Your task to perform on an android device: Go to Maps Image 0: 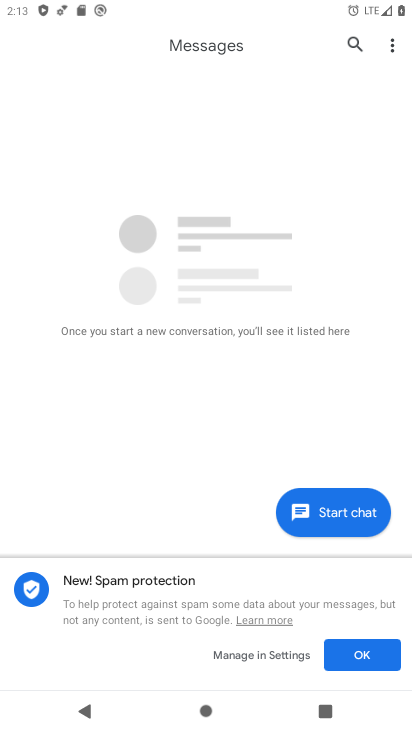
Step 0: press back button
Your task to perform on an android device: Go to Maps Image 1: 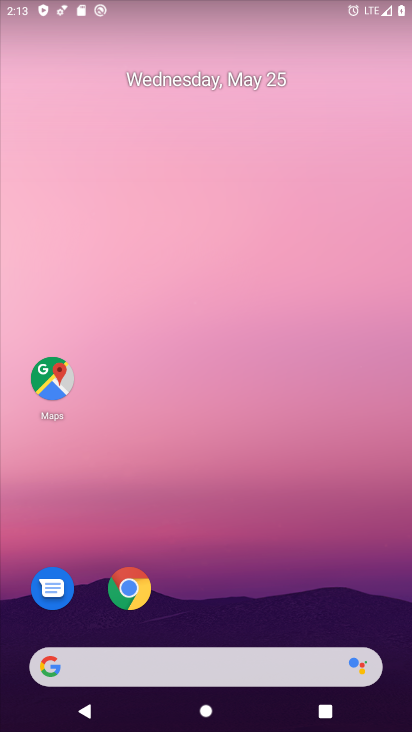
Step 1: click (49, 380)
Your task to perform on an android device: Go to Maps Image 2: 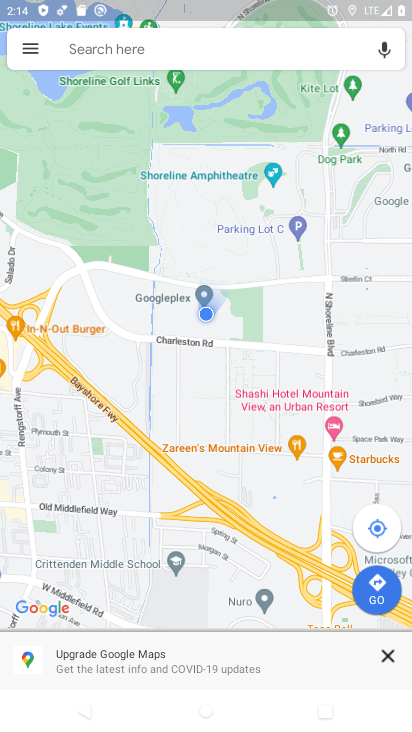
Step 2: task complete